Your task to perform on an android device: Show me popular videos on Youtube Image 0: 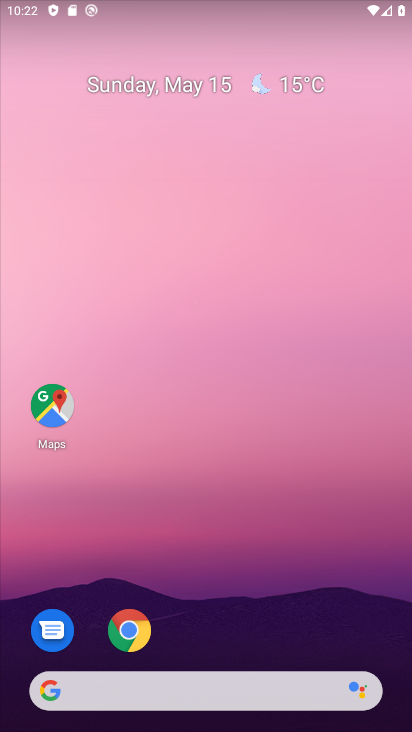
Step 0: drag from (199, 724) to (245, 170)
Your task to perform on an android device: Show me popular videos on Youtube Image 1: 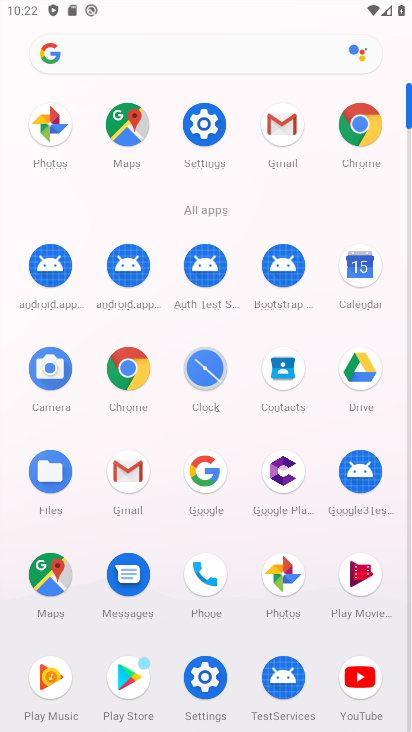
Step 1: click (353, 668)
Your task to perform on an android device: Show me popular videos on Youtube Image 2: 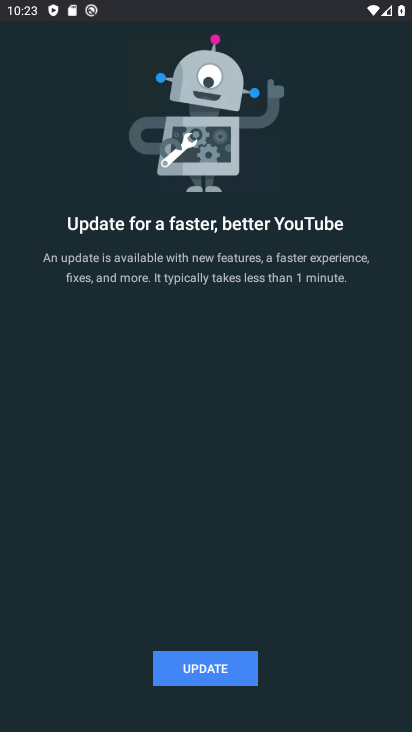
Step 2: task complete